Your task to perform on an android device: When is my next appointment? Image 0: 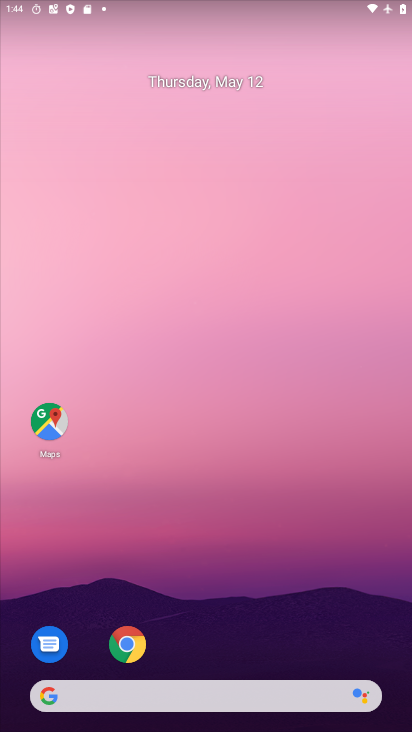
Step 0: drag from (253, 378) to (222, 68)
Your task to perform on an android device: When is my next appointment? Image 1: 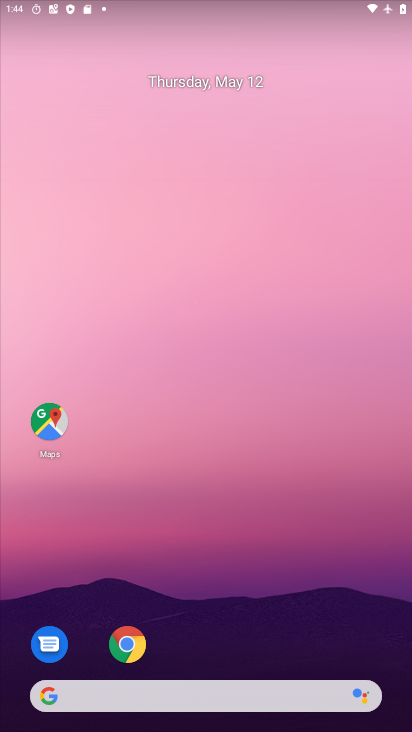
Step 1: click (195, 78)
Your task to perform on an android device: When is my next appointment? Image 2: 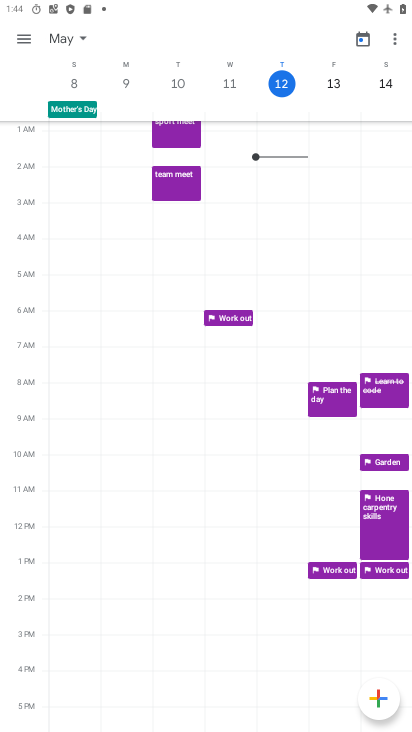
Step 2: task complete